Your task to perform on an android device: turn off improve location accuracy Image 0: 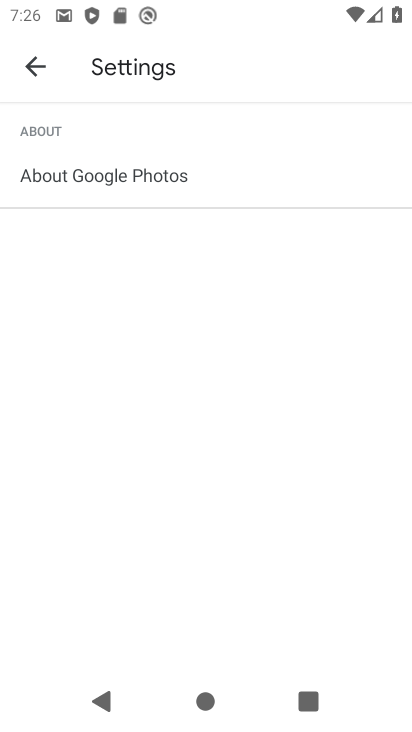
Step 0: press home button
Your task to perform on an android device: turn off improve location accuracy Image 1: 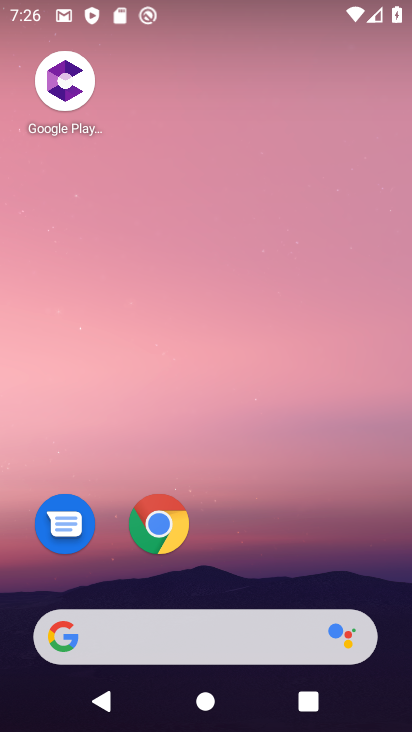
Step 1: drag from (178, 591) to (245, 56)
Your task to perform on an android device: turn off improve location accuracy Image 2: 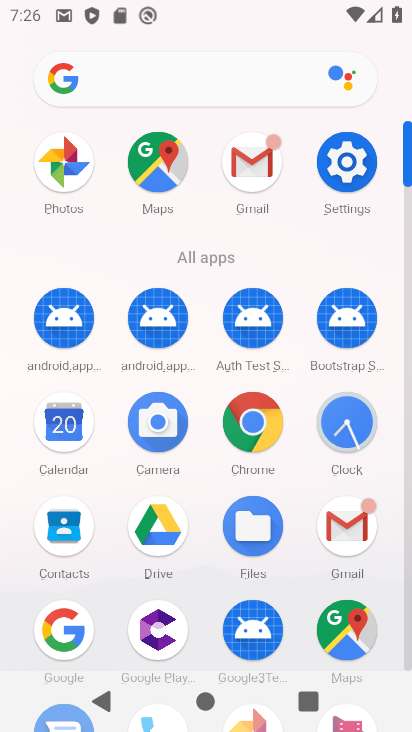
Step 2: click (342, 167)
Your task to perform on an android device: turn off improve location accuracy Image 3: 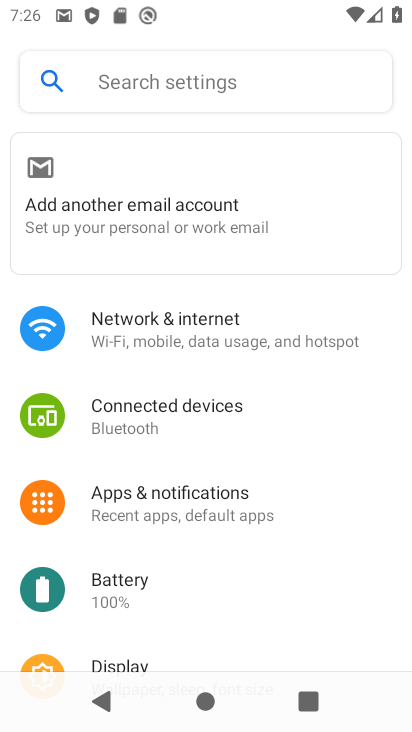
Step 3: drag from (194, 605) to (285, 138)
Your task to perform on an android device: turn off improve location accuracy Image 4: 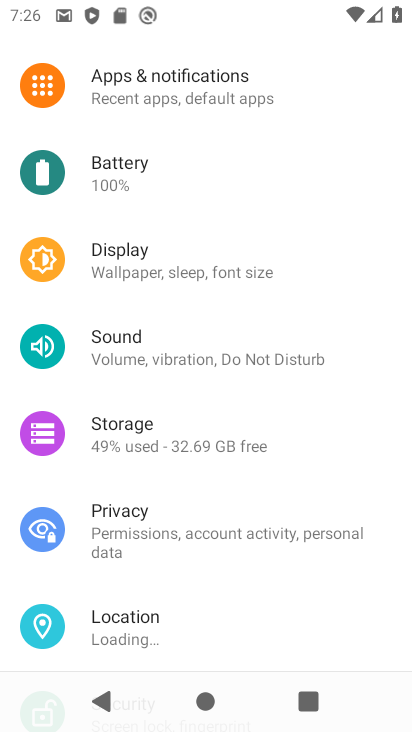
Step 4: click (120, 609)
Your task to perform on an android device: turn off improve location accuracy Image 5: 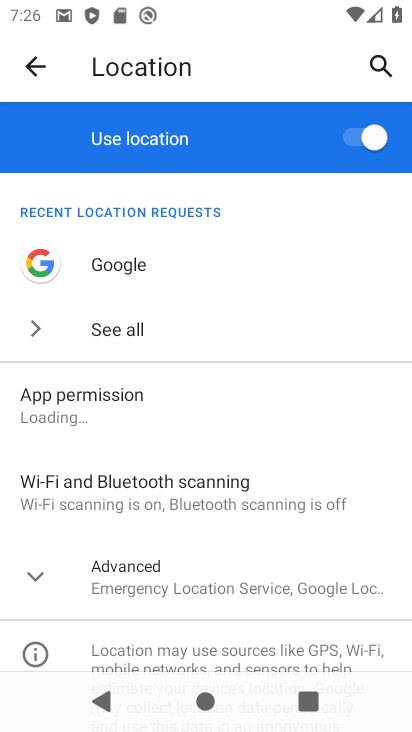
Step 5: drag from (172, 548) to (279, 323)
Your task to perform on an android device: turn off improve location accuracy Image 6: 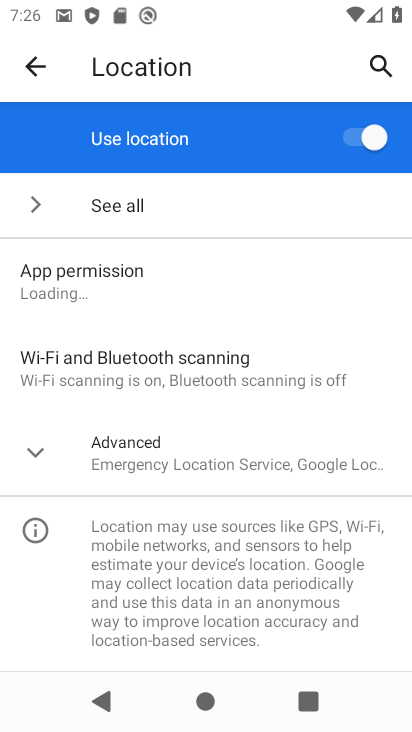
Step 6: click (174, 450)
Your task to perform on an android device: turn off improve location accuracy Image 7: 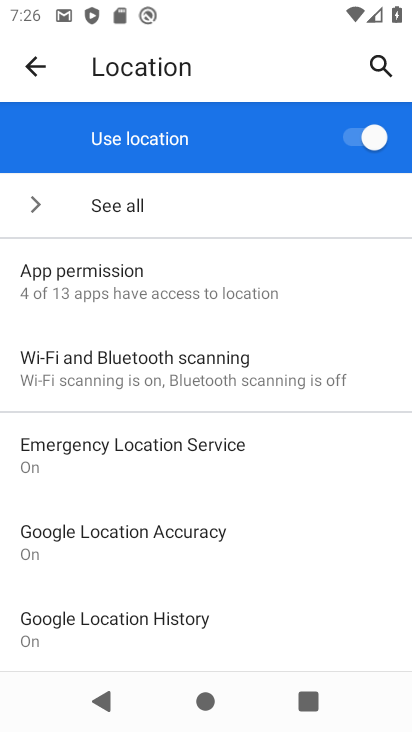
Step 7: click (132, 531)
Your task to perform on an android device: turn off improve location accuracy Image 8: 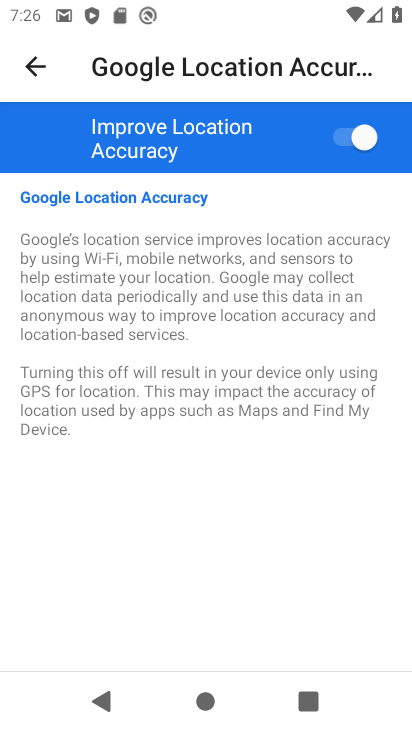
Step 8: click (342, 140)
Your task to perform on an android device: turn off improve location accuracy Image 9: 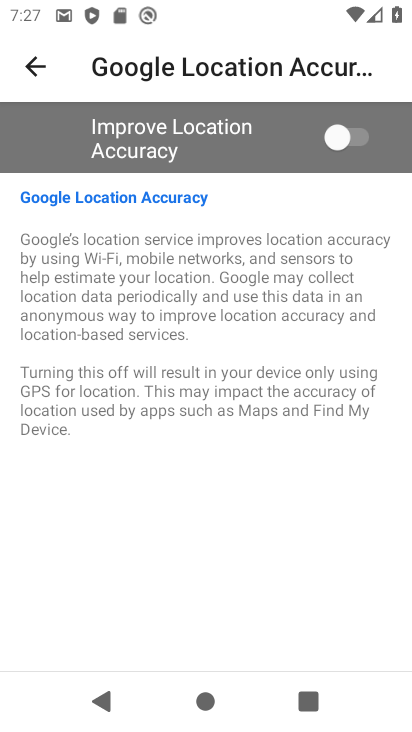
Step 9: task complete